Your task to perform on an android device: Show the shopping cart on target.com. Add energizer triple a to the cart on target.com Image 0: 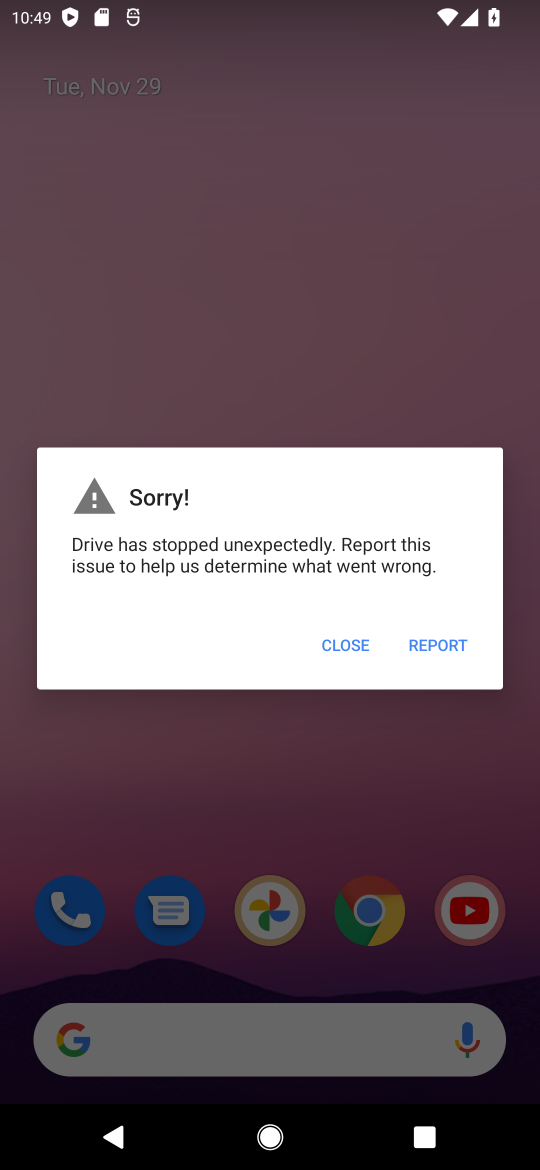
Step 0: press home button
Your task to perform on an android device: Show the shopping cart on target.com. Add energizer triple a to the cart on target.com Image 1: 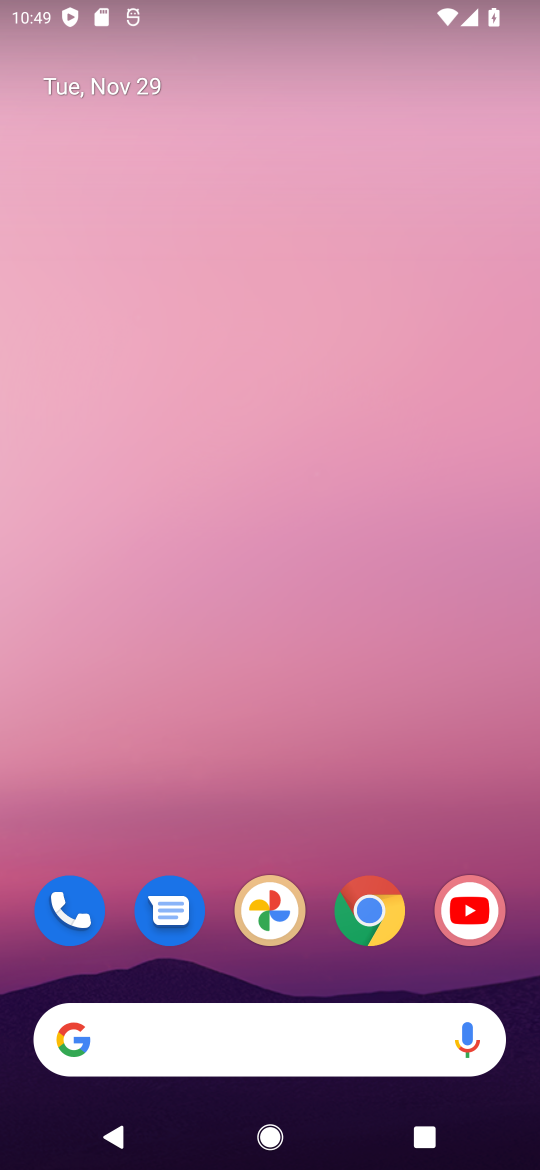
Step 1: click (369, 916)
Your task to perform on an android device: Show the shopping cart on target.com. Add energizer triple a to the cart on target.com Image 2: 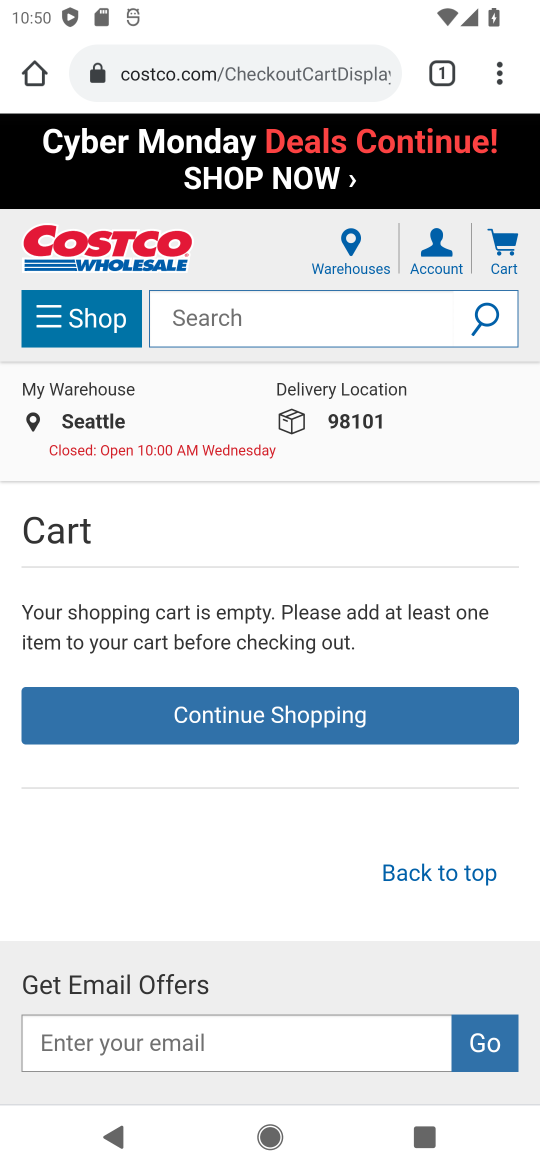
Step 2: click (233, 74)
Your task to perform on an android device: Show the shopping cart on target.com. Add energizer triple a to the cart on target.com Image 3: 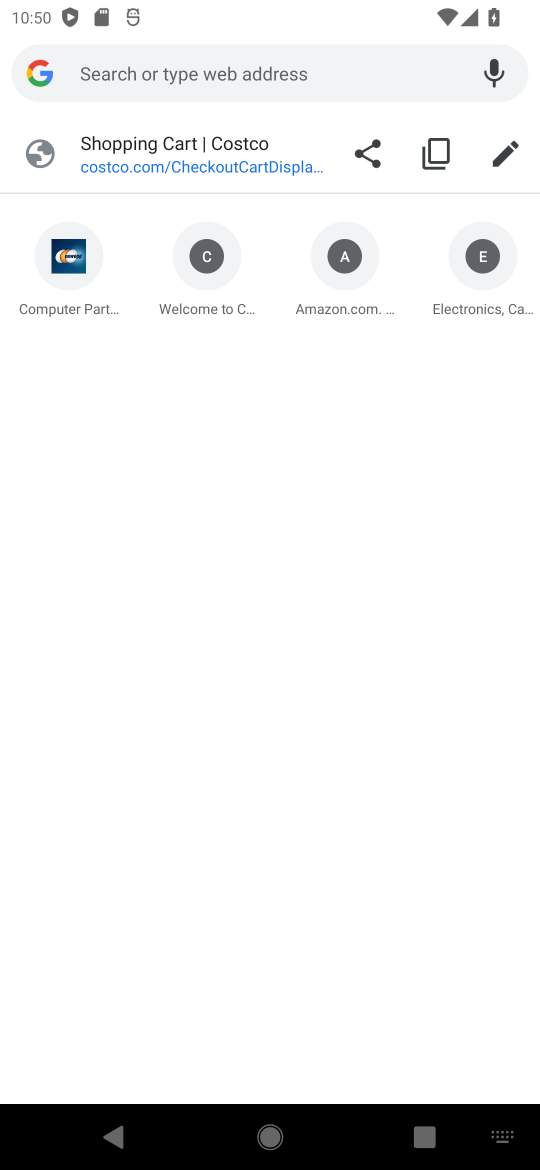
Step 3: type "target.com"
Your task to perform on an android device: Show the shopping cart on target.com. Add energizer triple a to the cart on target.com Image 4: 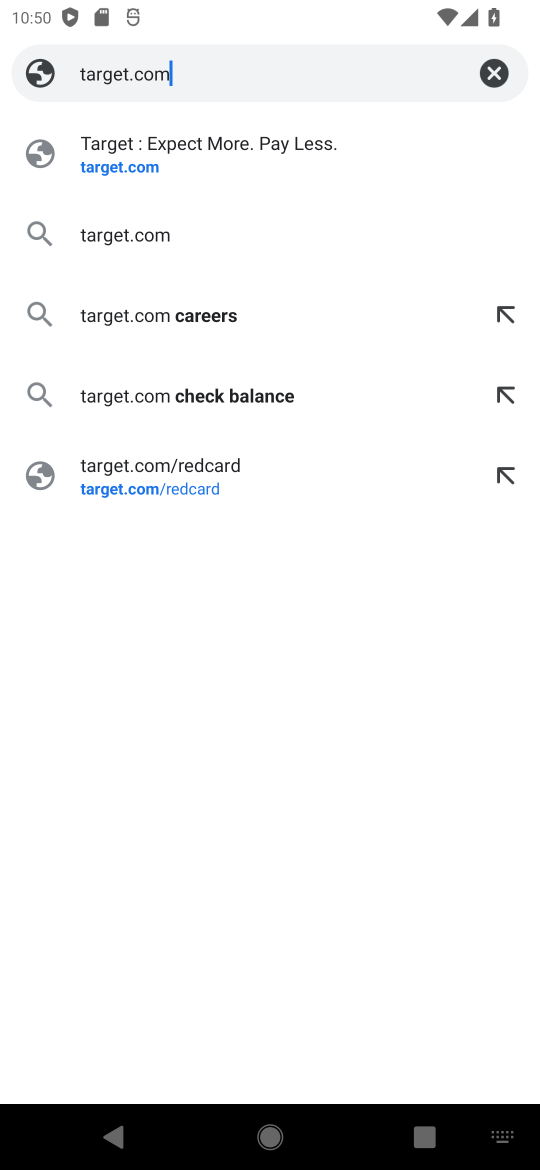
Step 4: click (94, 171)
Your task to perform on an android device: Show the shopping cart on target.com. Add energizer triple a to the cart on target.com Image 5: 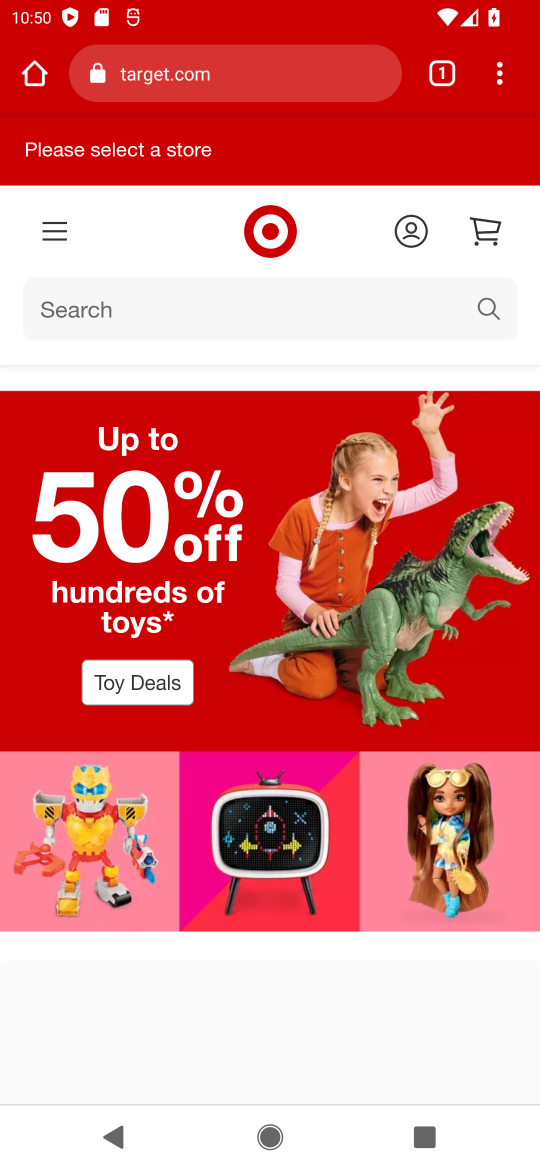
Step 5: click (482, 232)
Your task to perform on an android device: Show the shopping cart on target.com. Add energizer triple a to the cart on target.com Image 6: 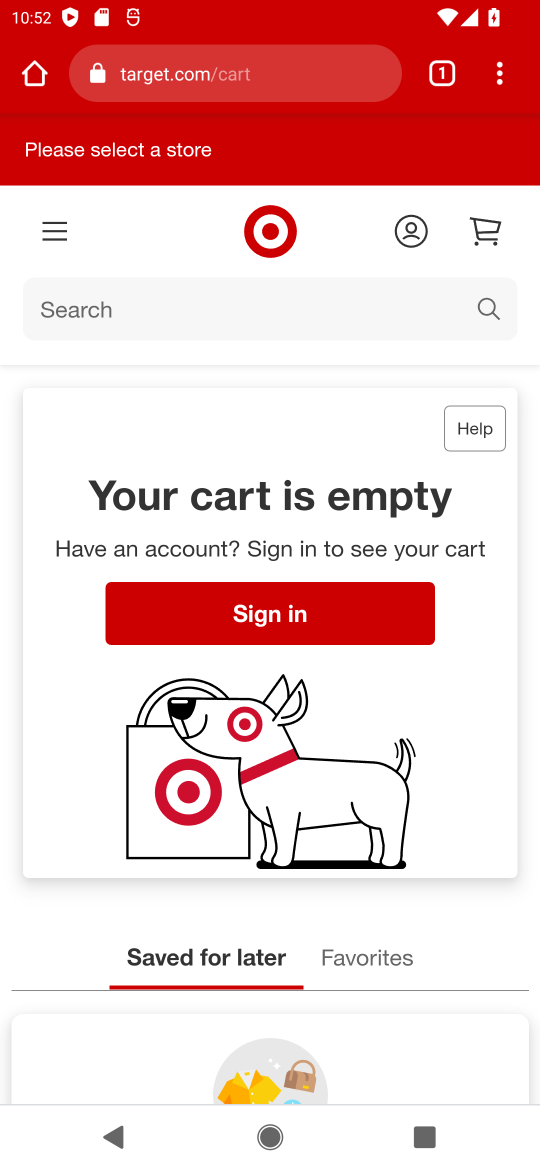
Step 6: click (121, 318)
Your task to perform on an android device: Show the shopping cart on target.com. Add energizer triple a to the cart on target.com Image 7: 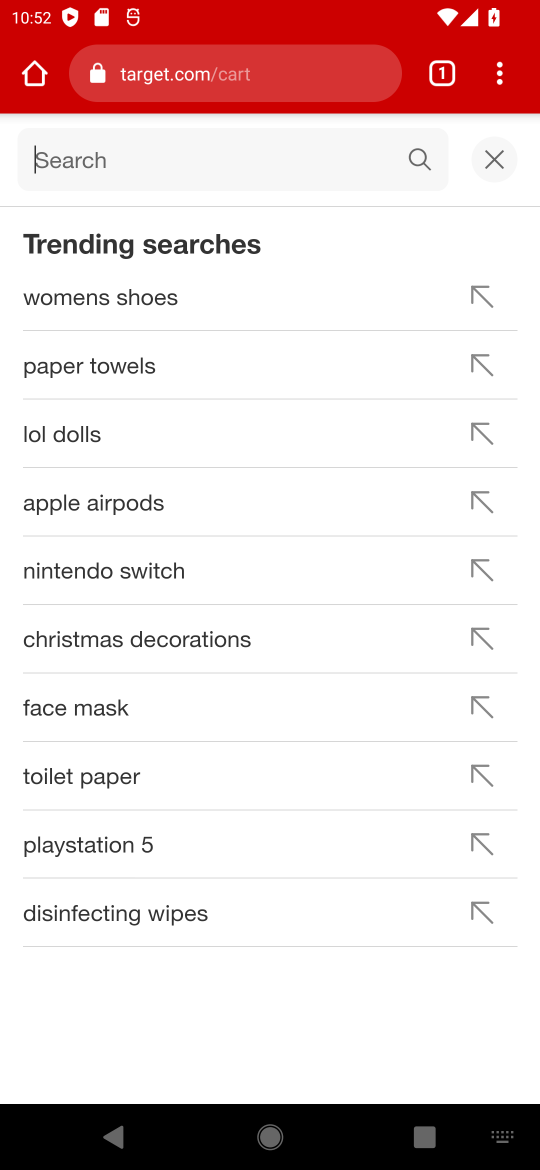
Step 7: type "energizer triple a"
Your task to perform on an android device: Show the shopping cart on target.com. Add energizer triple a to the cart on target.com Image 8: 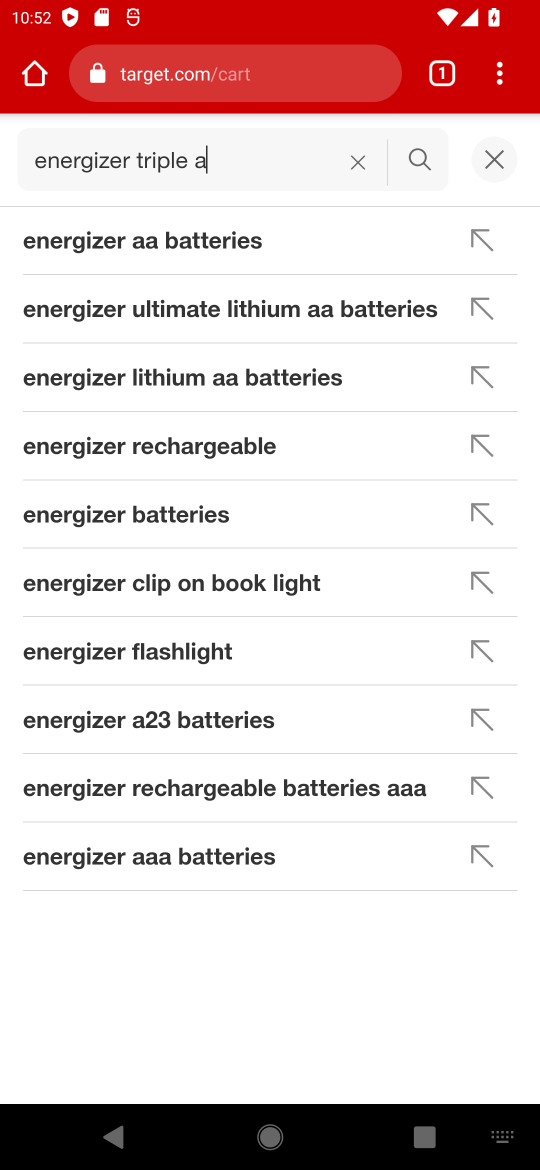
Step 8: click (417, 160)
Your task to perform on an android device: Show the shopping cart on target.com. Add energizer triple a to the cart on target.com Image 9: 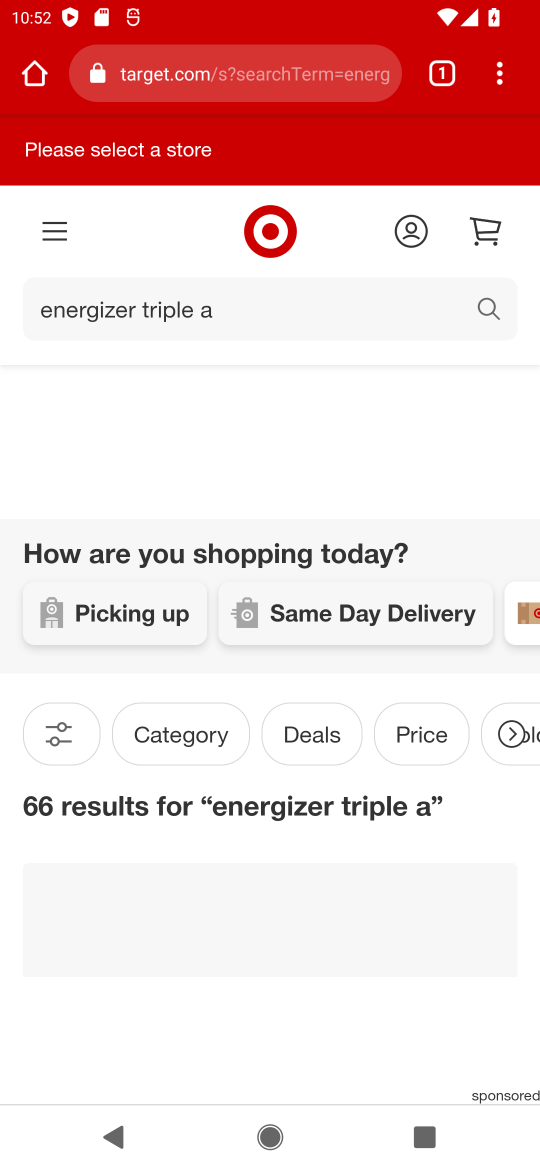
Step 9: drag from (250, 797) to (271, 388)
Your task to perform on an android device: Show the shopping cart on target.com. Add energizer triple a to the cart on target.com Image 10: 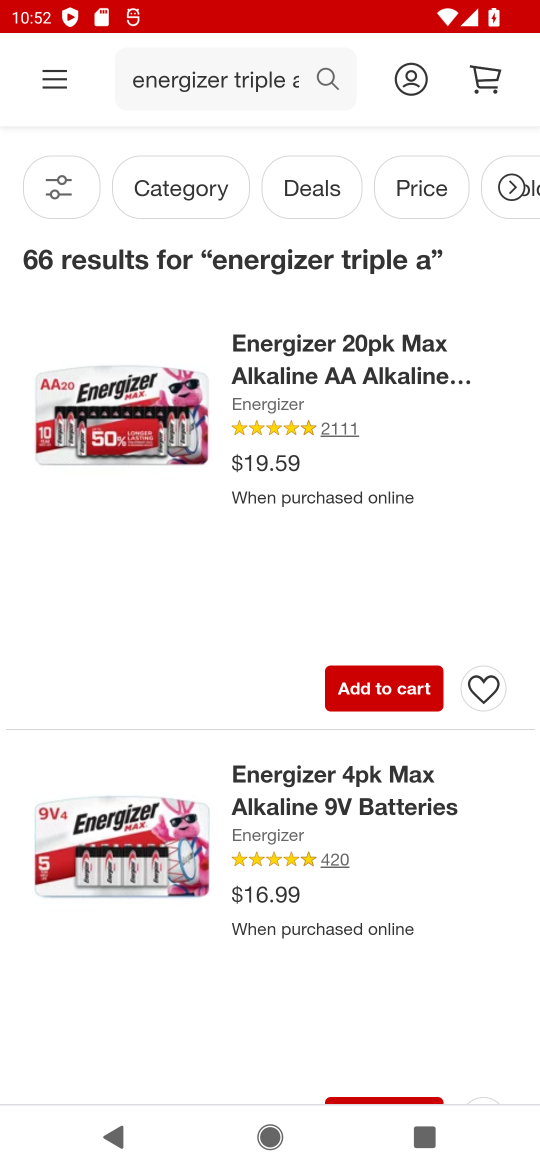
Step 10: drag from (134, 856) to (151, 292)
Your task to perform on an android device: Show the shopping cart on target.com. Add energizer triple a to the cart on target.com Image 11: 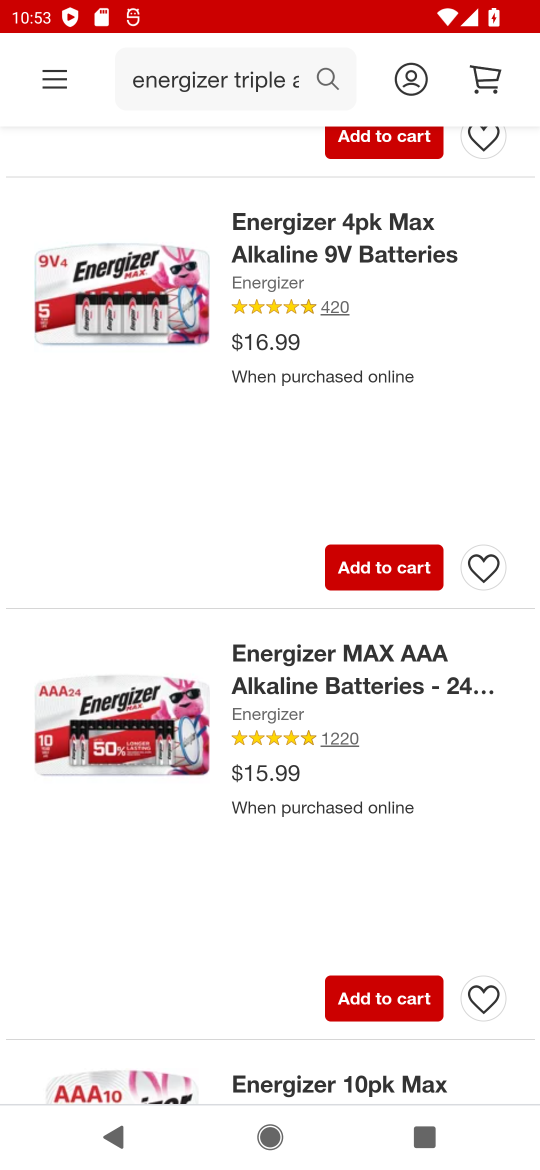
Step 11: click (395, 999)
Your task to perform on an android device: Show the shopping cart on target.com. Add energizer triple a to the cart on target.com Image 12: 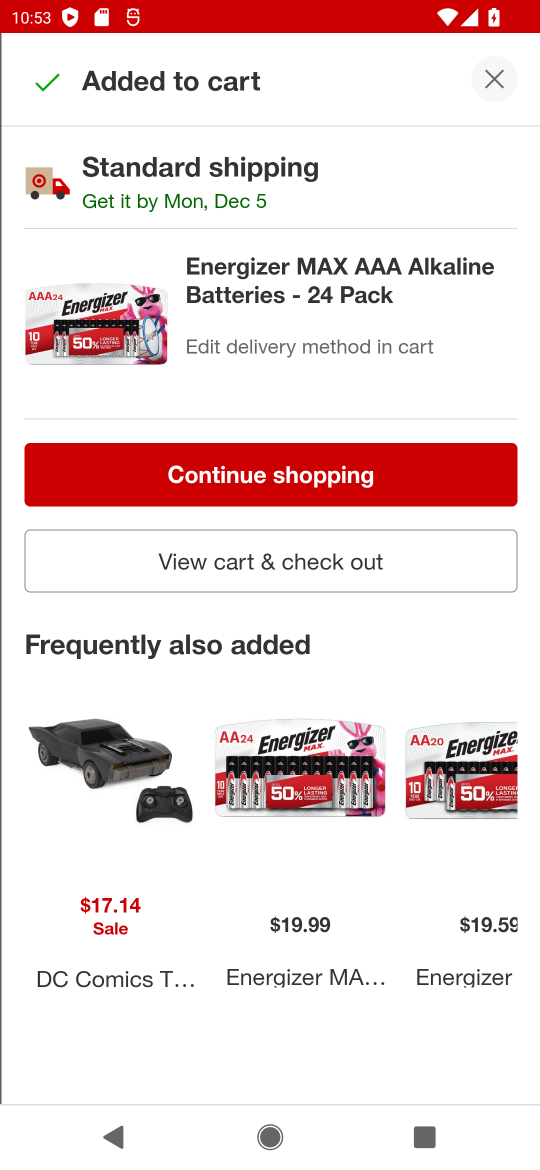
Step 12: task complete